Your task to perform on an android device: Is it going to rain today? Image 0: 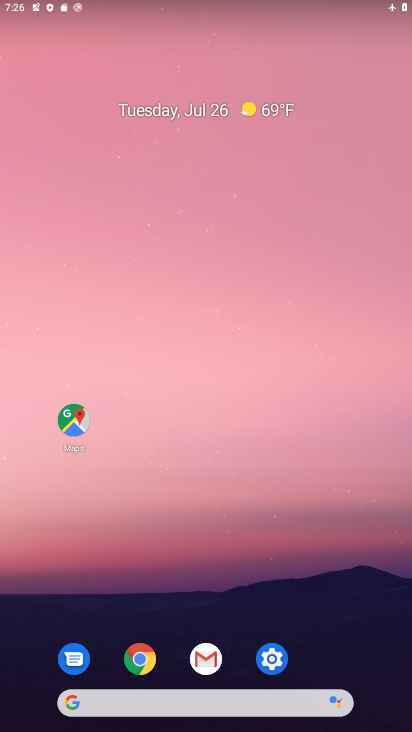
Step 0: click (140, 707)
Your task to perform on an android device: Is it going to rain today? Image 1: 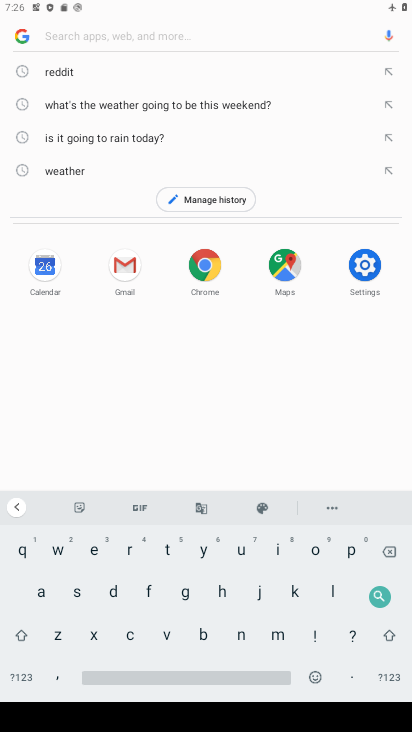
Step 1: click (133, 138)
Your task to perform on an android device: Is it going to rain today? Image 2: 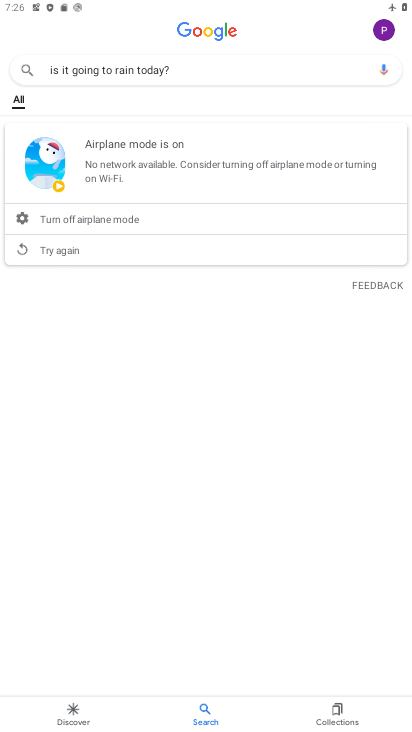
Step 2: press home button
Your task to perform on an android device: Is it going to rain today? Image 3: 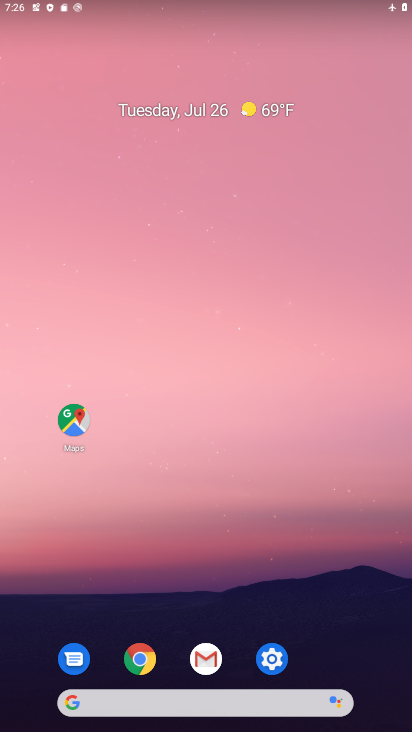
Step 3: click (265, 669)
Your task to perform on an android device: Is it going to rain today? Image 4: 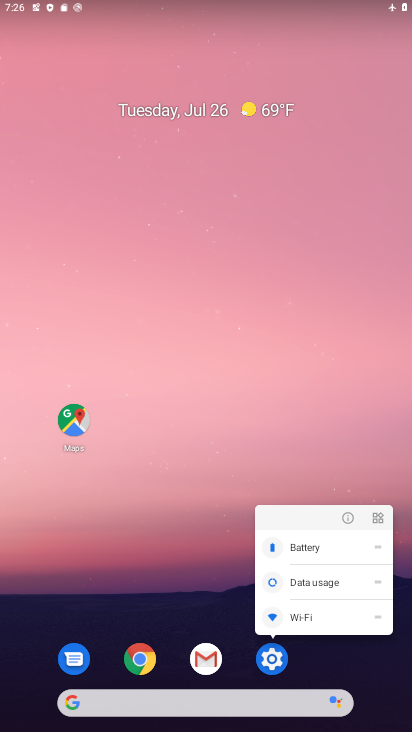
Step 4: click (266, 669)
Your task to perform on an android device: Is it going to rain today? Image 5: 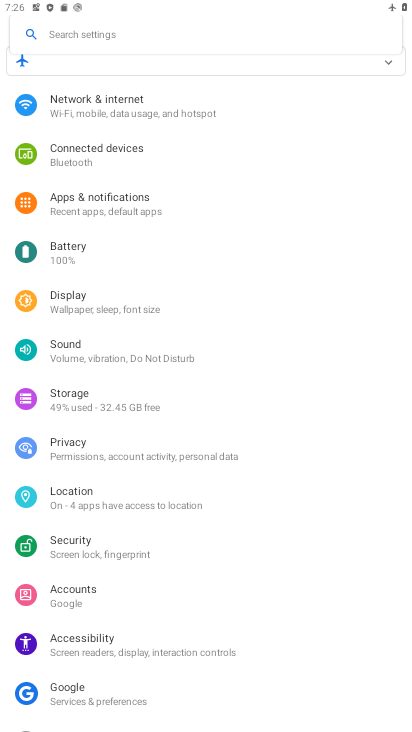
Step 5: click (81, 68)
Your task to perform on an android device: Is it going to rain today? Image 6: 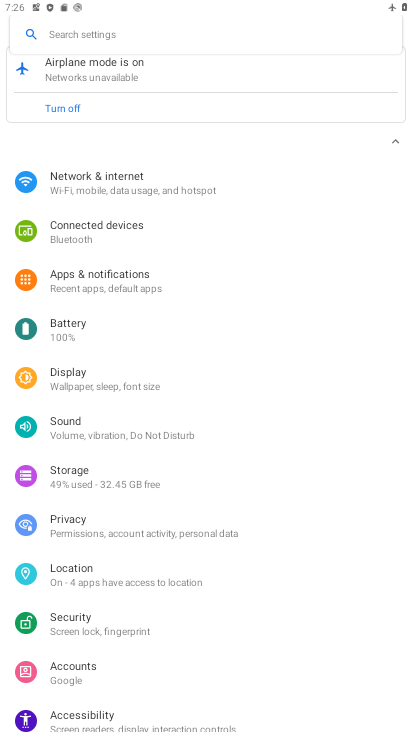
Step 6: click (56, 107)
Your task to perform on an android device: Is it going to rain today? Image 7: 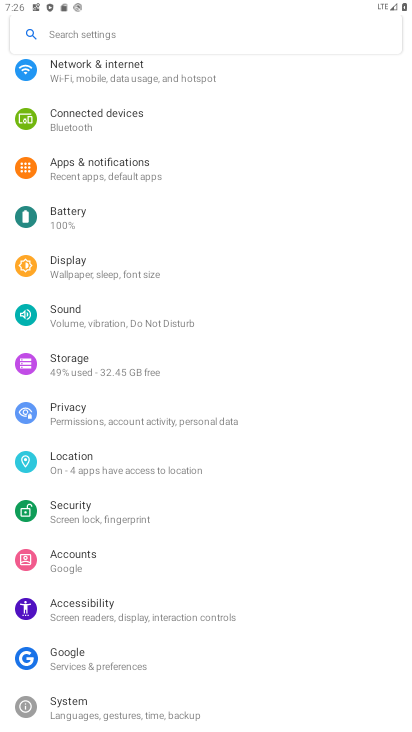
Step 7: press home button
Your task to perform on an android device: Is it going to rain today? Image 8: 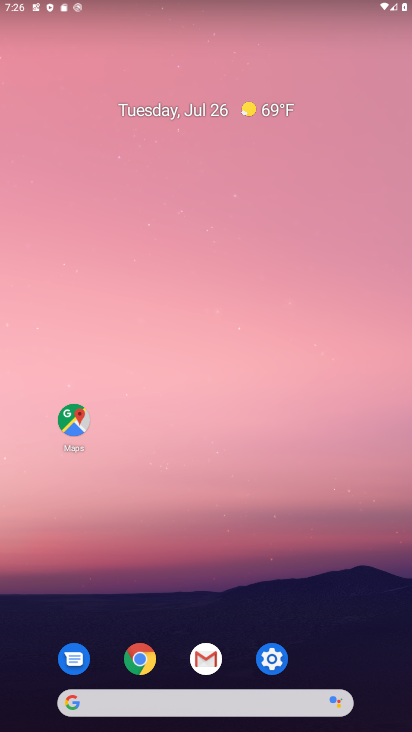
Step 8: click (134, 706)
Your task to perform on an android device: Is it going to rain today? Image 9: 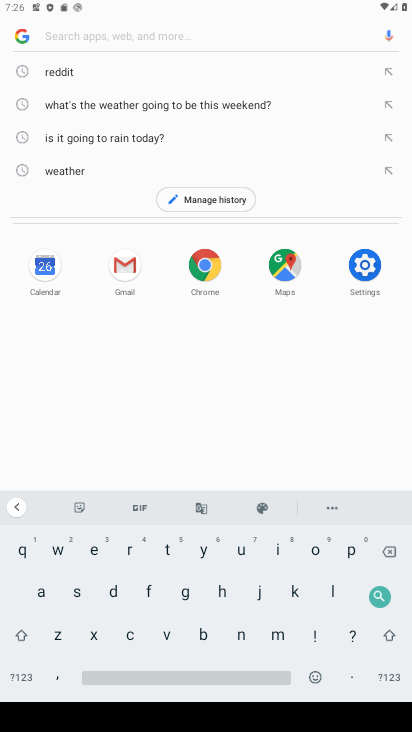
Step 9: click (113, 135)
Your task to perform on an android device: Is it going to rain today? Image 10: 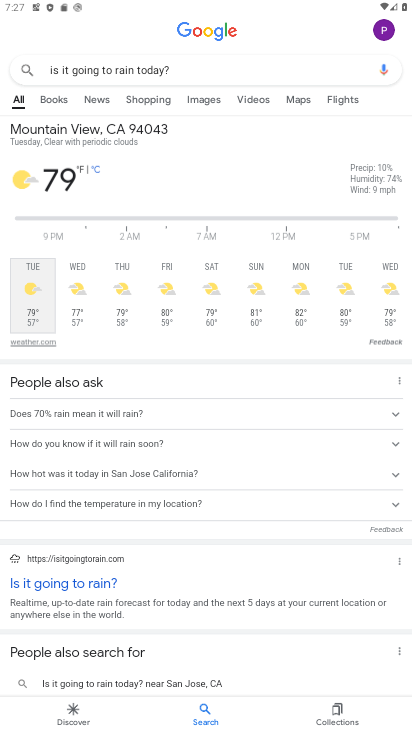
Step 10: task complete